Your task to perform on an android device: Open the stopwatch Image 0: 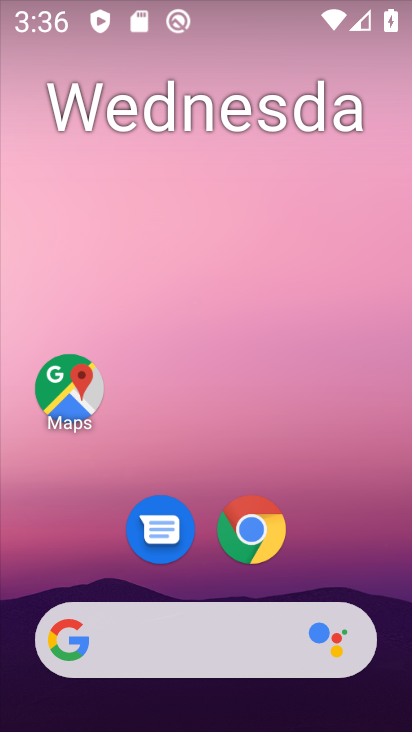
Step 0: drag from (92, 608) to (186, 168)
Your task to perform on an android device: Open the stopwatch Image 1: 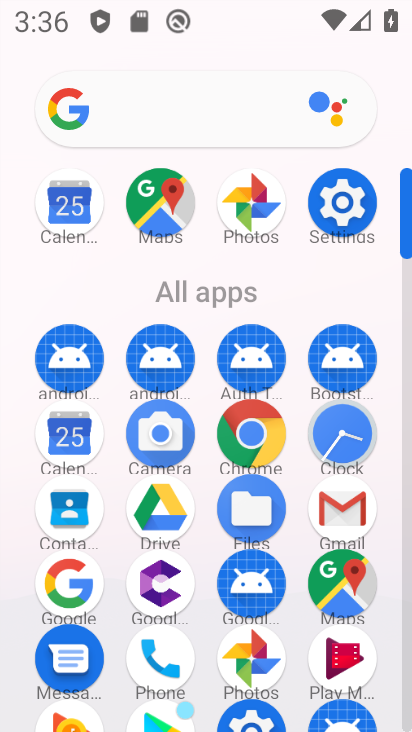
Step 1: click (337, 434)
Your task to perform on an android device: Open the stopwatch Image 2: 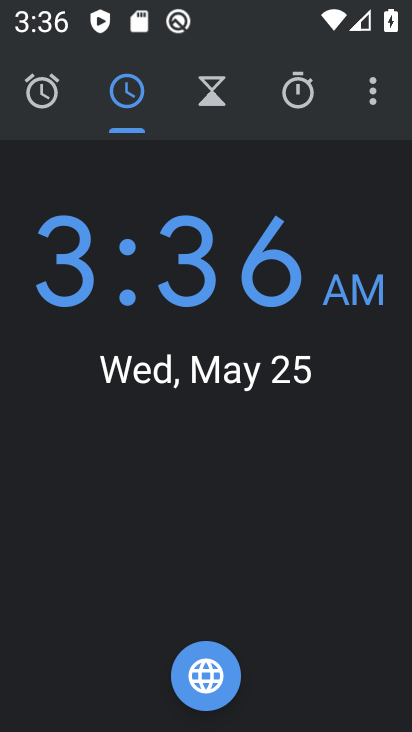
Step 2: click (292, 106)
Your task to perform on an android device: Open the stopwatch Image 3: 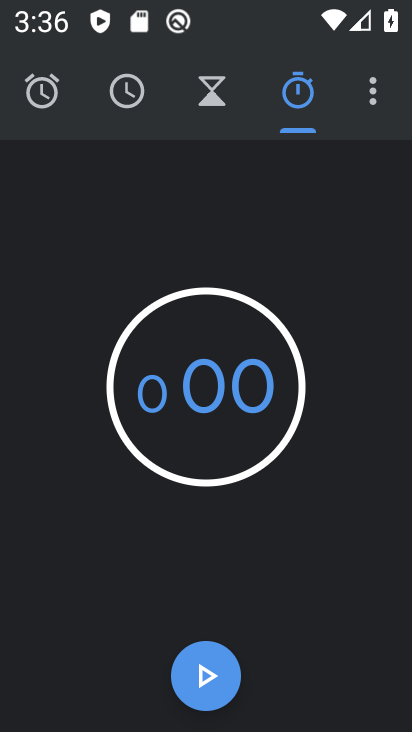
Step 3: task complete